Your task to perform on an android device: find snoozed emails in the gmail app Image 0: 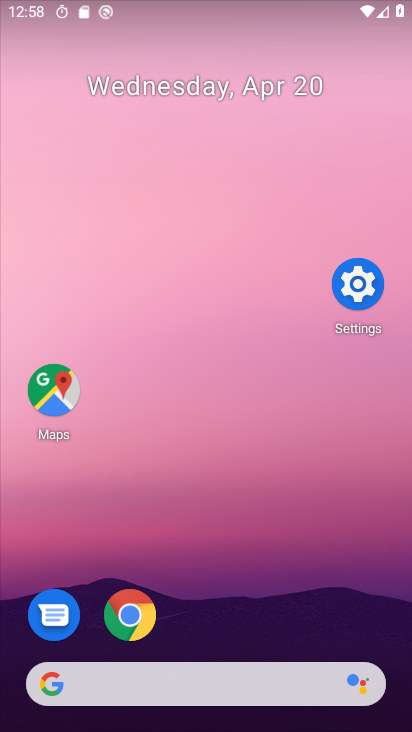
Step 0: drag from (209, 616) to (280, 219)
Your task to perform on an android device: find snoozed emails in the gmail app Image 1: 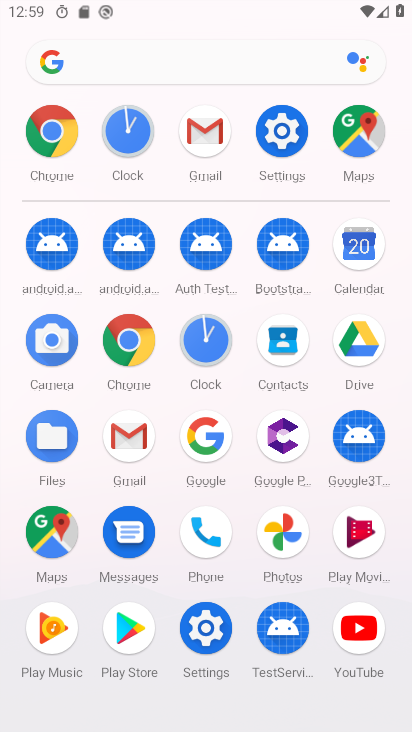
Step 1: click (126, 438)
Your task to perform on an android device: find snoozed emails in the gmail app Image 2: 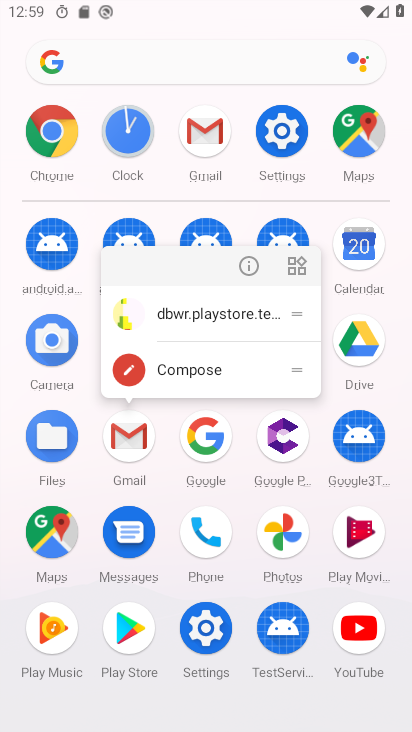
Step 2: click (244, 274)
Your task to perform on an android device: find snoozed emails in the gmail app Image 3: 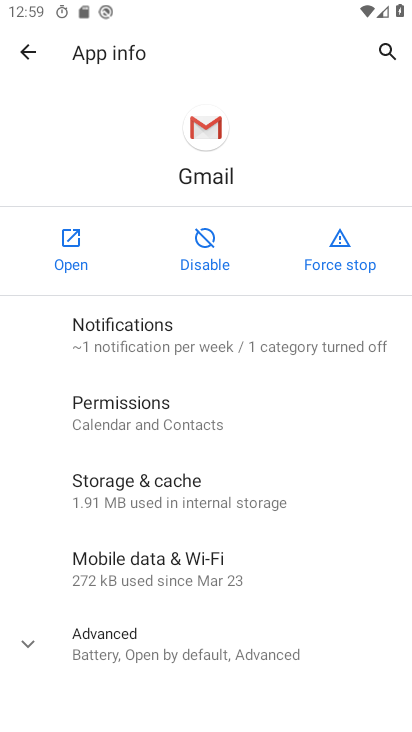
Step 3: click (71, 238)
Your task to perform on an android device: find snoozed emails in the gmail app Image 4: 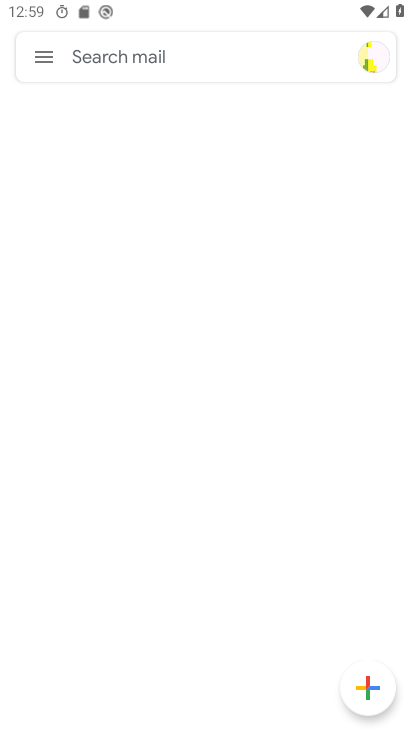
Step 4: drag from (227, 573) to (291, 185)
Your task to perform on an android device: find snoozed emails in the gmail app Image 5: 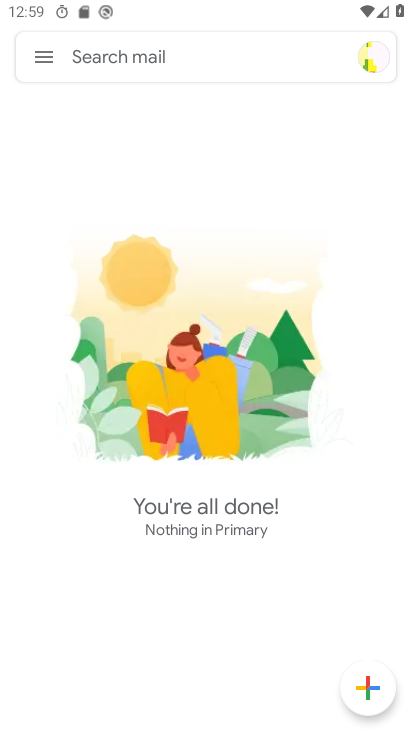
Step 5: drag from (203, 479) to (211, 282)
Your task to perform on an android device: find snoozed emails in the gmail app Image 6: 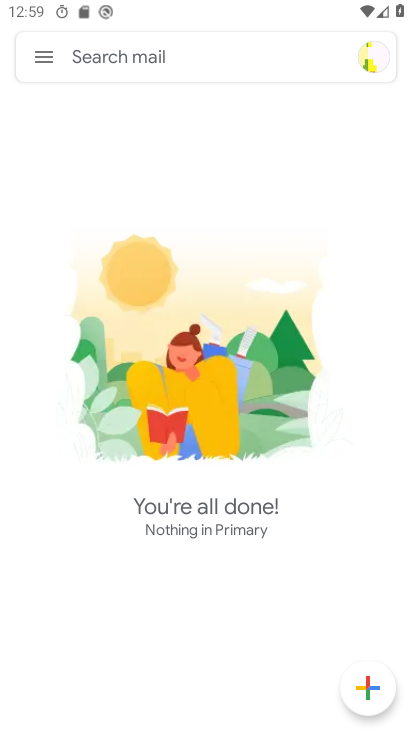
Step 6: click (39, 64)
Your task to perform on an android device: find snoozed emails in the gmail app Image 7: 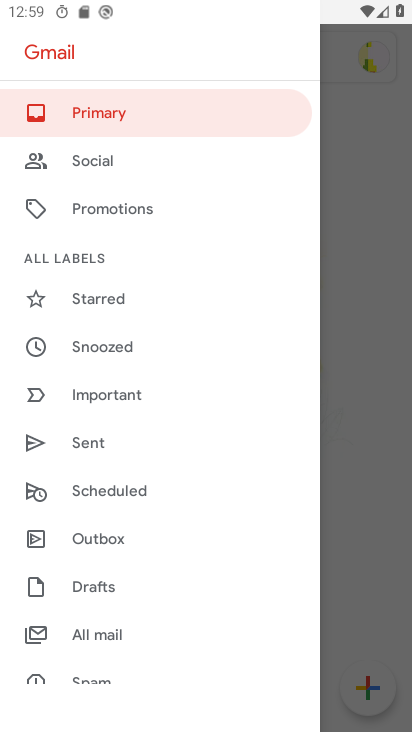
Step 7: click (123, 345)
Your task to perform on an android device: find snoozed emails in the gmail app Image 8: 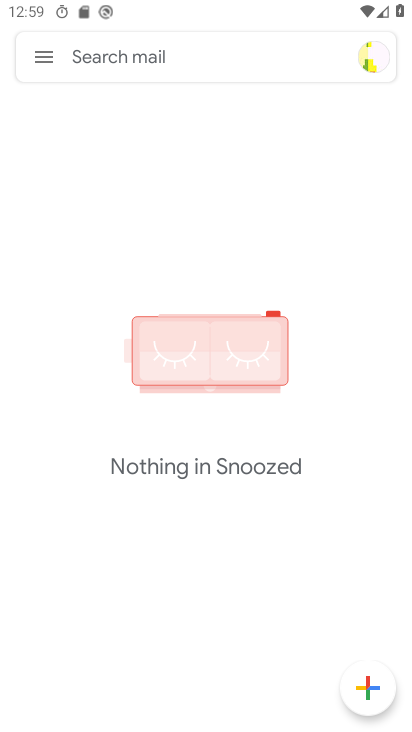
Step 8: task complete